Your task to perform on an android device: turn on airplane mode Image 0: 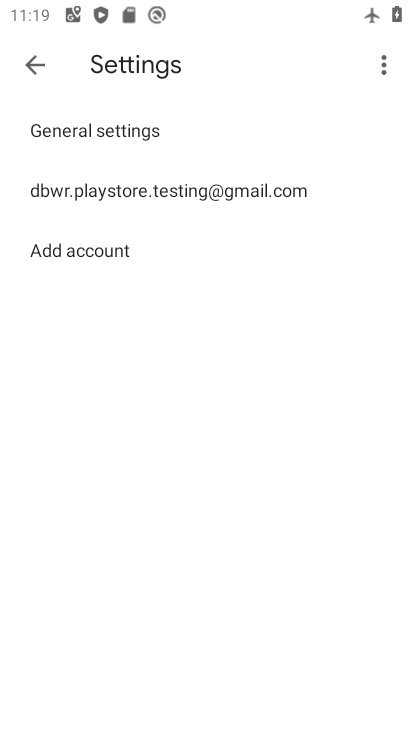
Step 0: press home button
Your task to perform on an android device: turn on airplane mode Image 1: 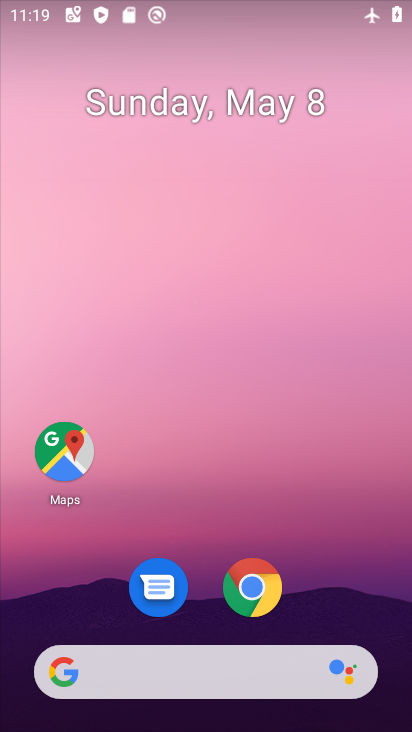
Step 1: click (204, 156)
Your task to perform on an android device: turn on airplane mode Image 2: 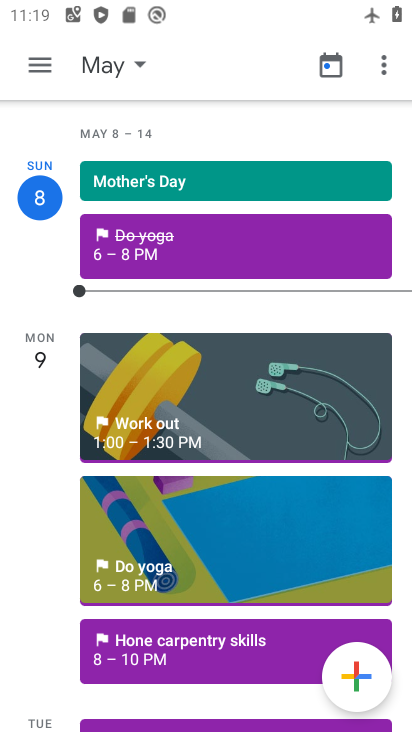
Step 2: press home button
Your task to perform on an android device: turn on airplane mode Image 3: 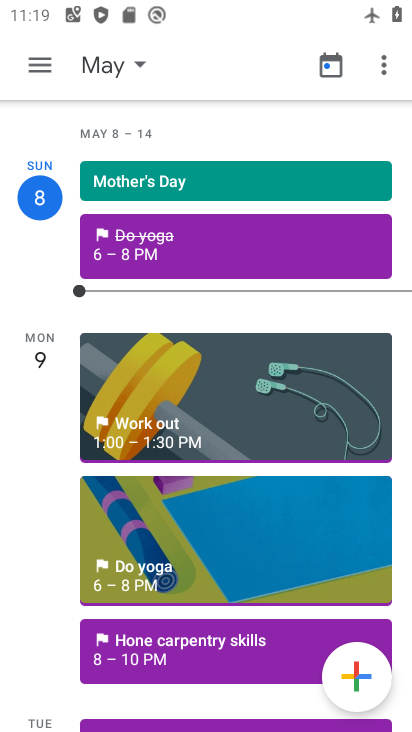
Step 3: press home button
Your task to perform on an android device: turn on airplane mode Image 4: 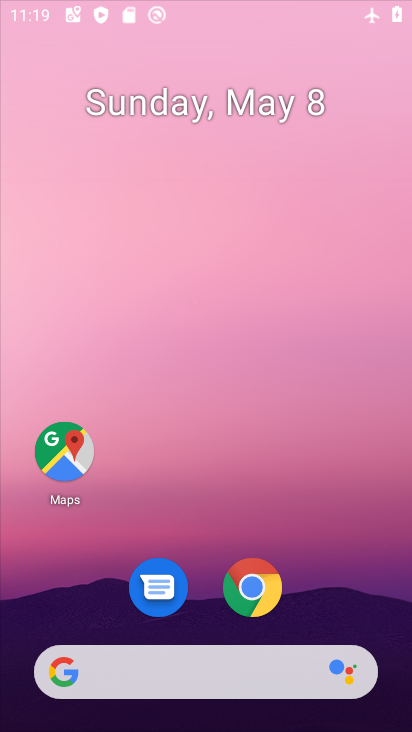
Step 4: press home button
Your task to perform on an android device: turn on airplane mode Image 5: 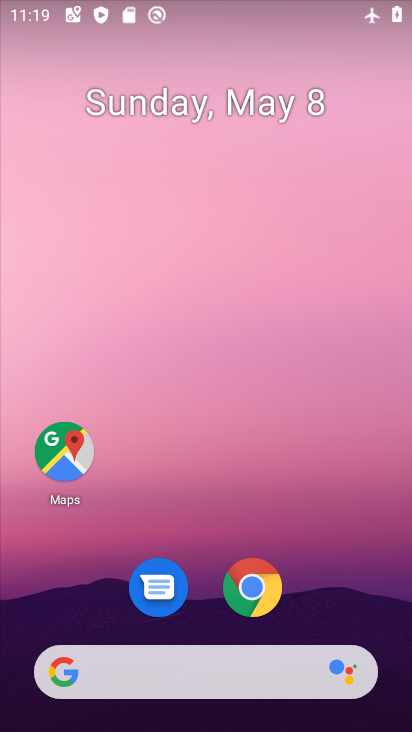
Step 5: drag from (341, 625) to (137, 8)
Your task to perform on an android device: turn on airplane mode Image 6: 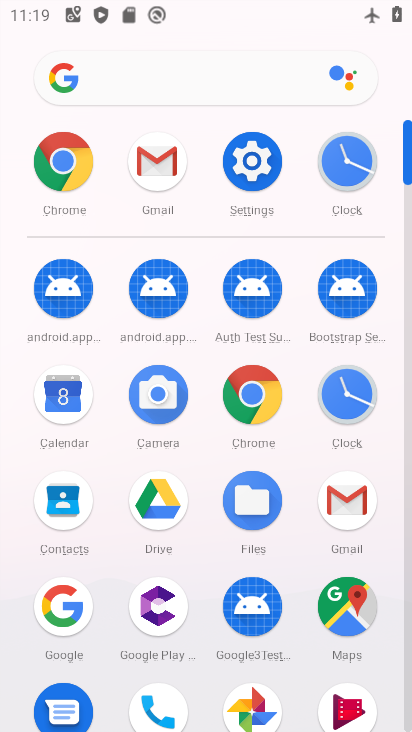
Step 6: click (236, 155)
Your task to perform on an android device: turn on airplane mode Image 7: 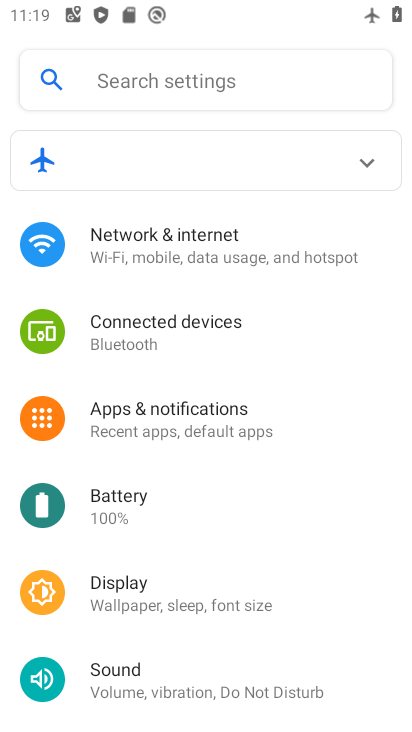
Step 7: click (161, 248)
Your task to perform on an android device: turn on airplane mode Image 8: 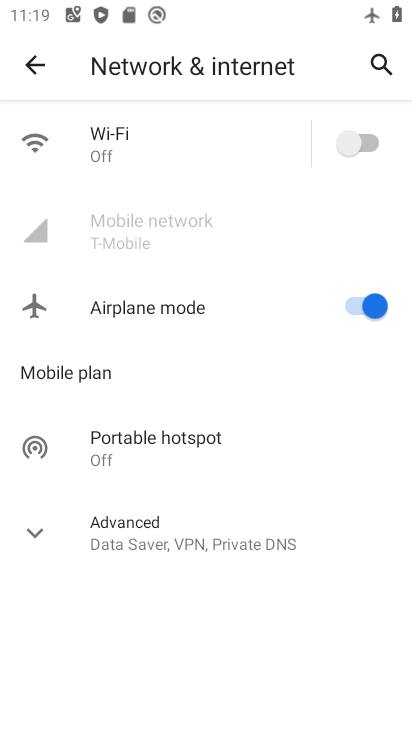
Step 8: task complete